Your task to perform on an android device: turn off improve location accuracy Image 0: 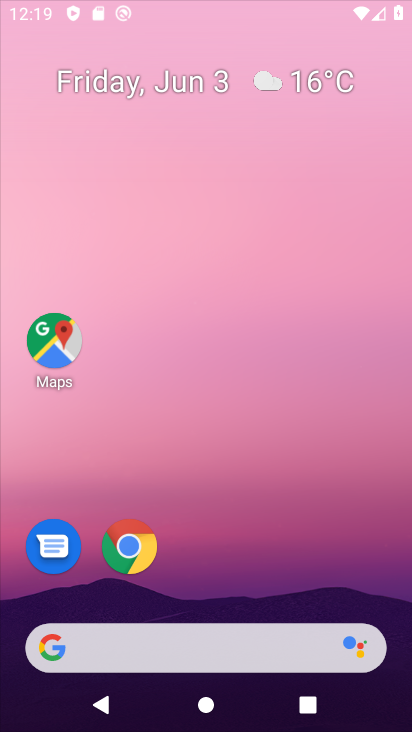
Step 0: press back button
Your task to perform on an android device: turn off improve location accuracy Image 1: 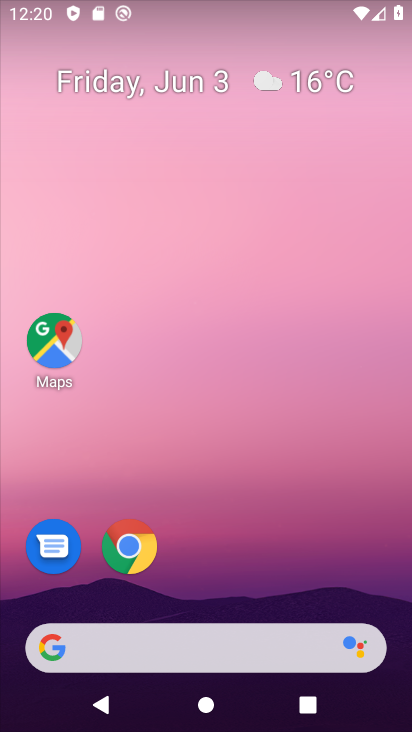
Step 1: drag from (207, 594) to (282, 13)
Your task to perform on an android device: turn off improve location accuracy Image 2: 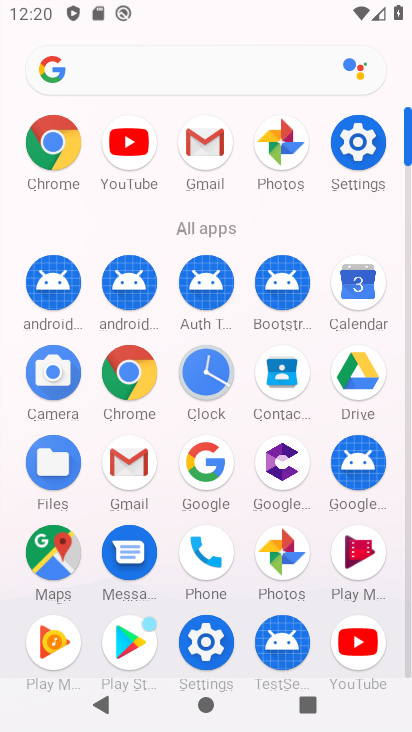
Step 2: click (353, 144)
Your task to perform on an android device: turn off improve location accuracy Image 3: 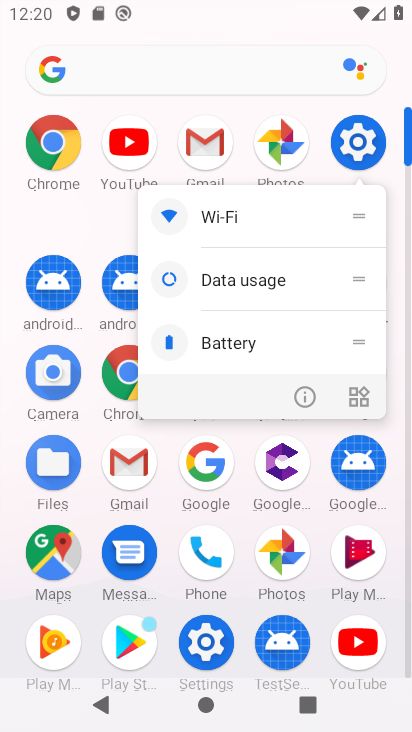
Step 3: click (370, 136)
Your task to perform on an android device: turn off improve location accuracy Image 4: 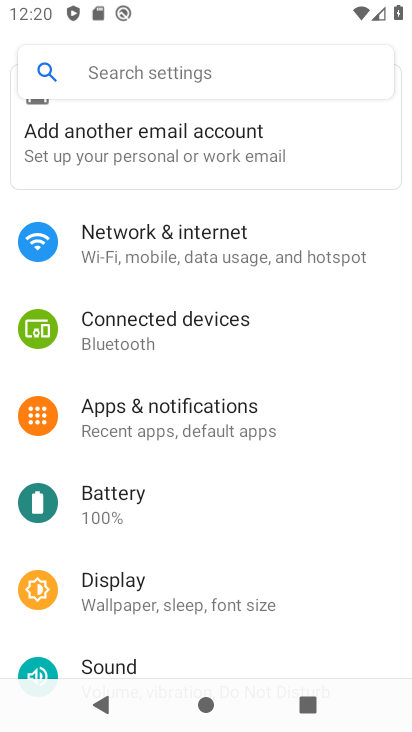
Step 4: drag from (214, 308) to (235, 103)
Your task to perform on an android device: turn off improve location accuracy Image 5: 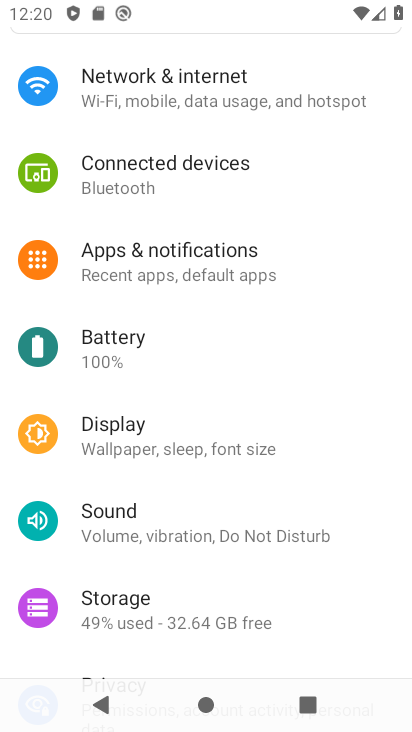
Step 5: drag from (184, 473) to (236, 108)
Your task to perform on an android device: turn off improve location accuracy Image 6: 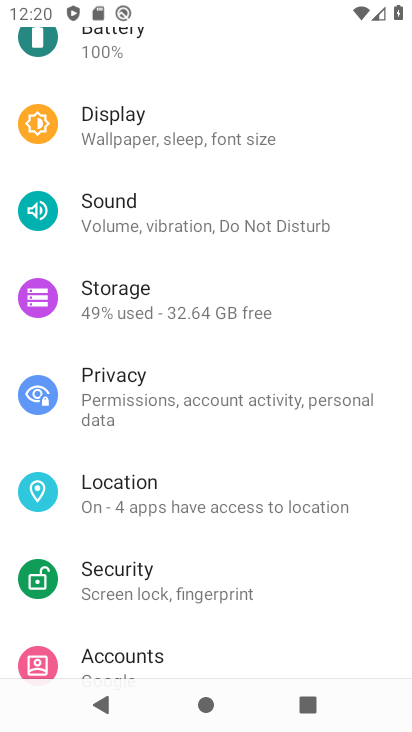
Step 6: click (121, 494)
Your task to perform on an android device: turn off improve location accuracy Image 7: 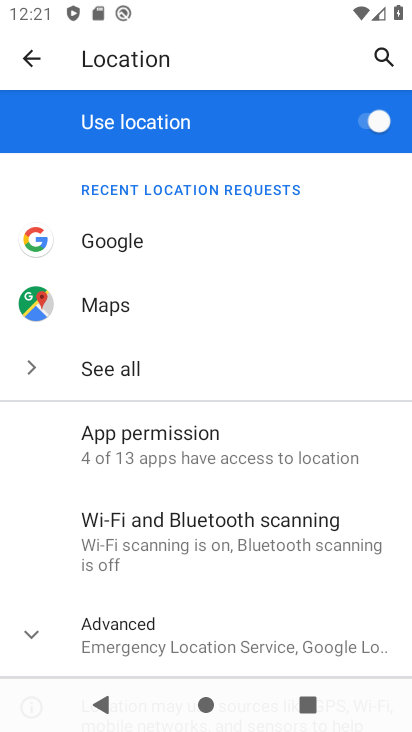
Step 7: drag from (178, 587) to (286, 128)
Your task to perform on an android device: turn off improve location accuracy Image 8: 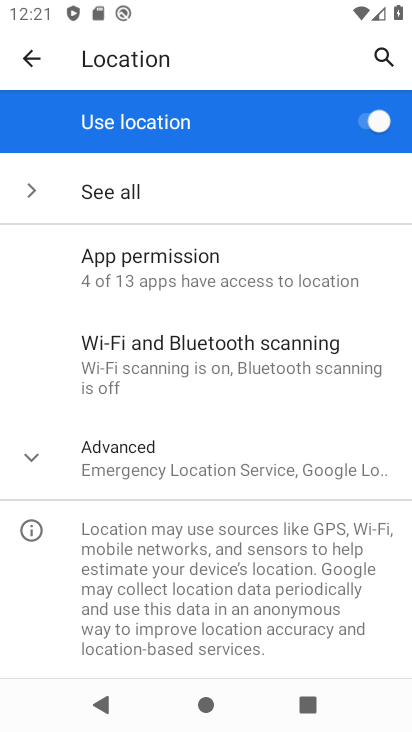
Step 8: click (177, 468)
Your task to perform on an android device: turn off improve location accuracy Image 9: 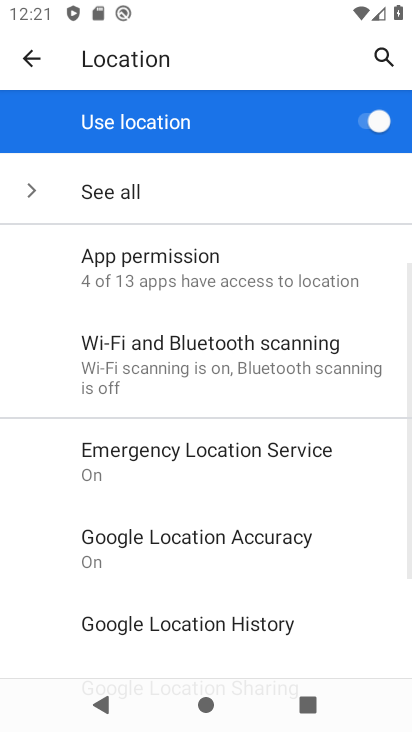
Step 9: click (192, 543)
Your task to perform on an android device: turn off improve location accuracy Image 10: 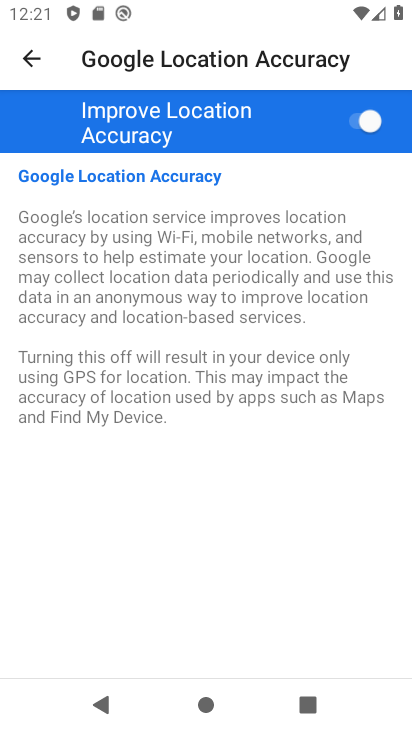
Step 10: click (369, 123)
Your task to perform on an android device: turn off improve location accuracy Image 11: 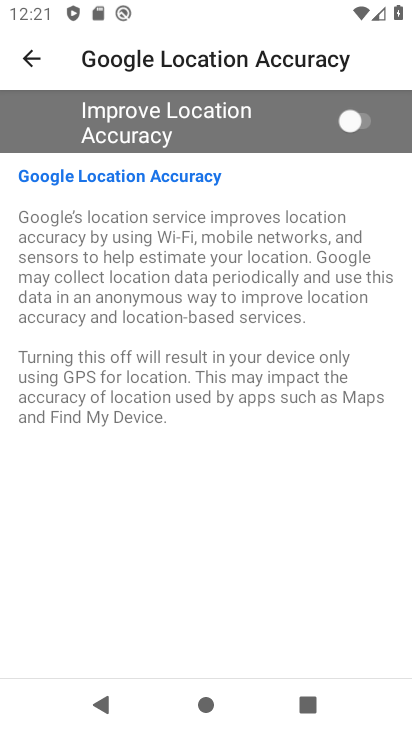
Step 11: task complete